Your task to perform on an android device: turn off notifications in google photos Image 0: 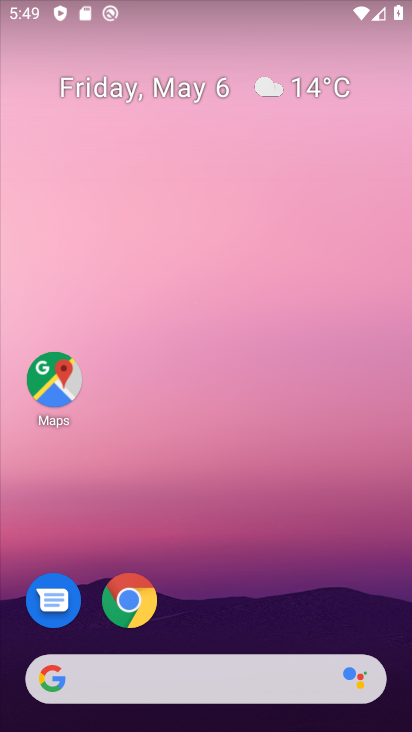
Step 0: drag from (209, 609) to (245, 27)
Your task to perform on an android device: turn off notifications in google photos Image 1: 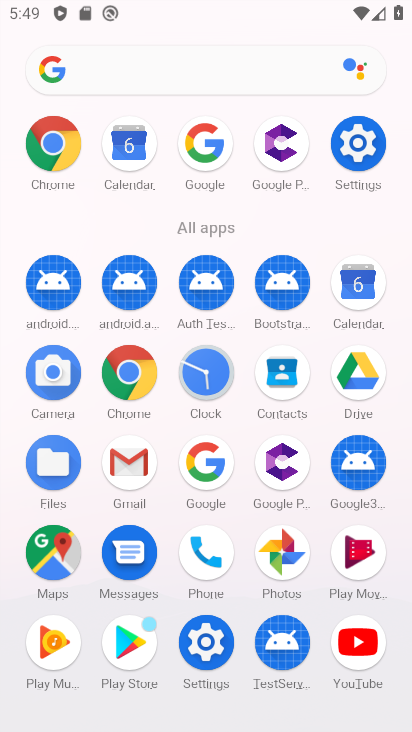
Step 1: click (280, 548)
Your task to perform on an android device: turn off notifications in google photos Image 2: 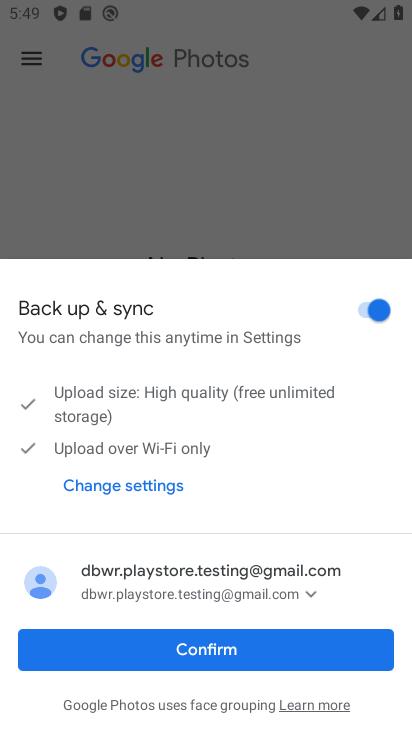
Step 2: click (207, 634)
Your task to perform on an android device: turn off notifications in google photos Image 3: 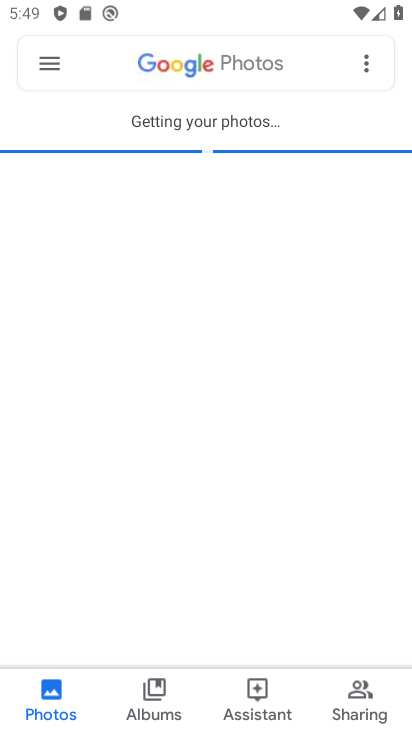
Step 3: click (18, 60)
Your task to perform on an android device: turn off notifications in google photos Image 4: 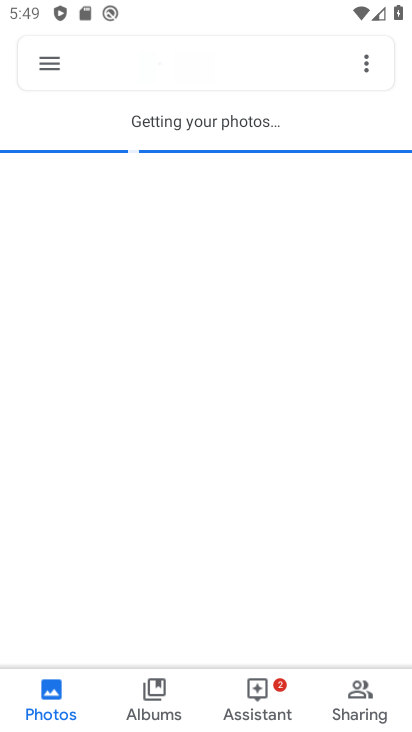
Step 4: click (47, 62)
Your task to perform on an android device: turn off notifications in google photos Image 5: 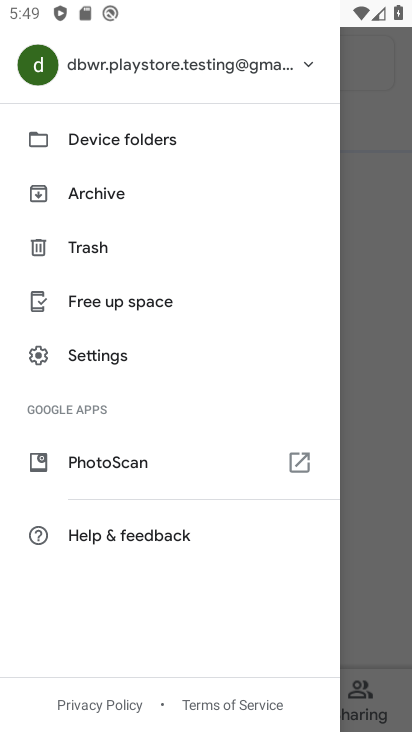
Step 5: click (105, 351)
Your task to perform on an android device: turn off notifications in google photos Image 6: 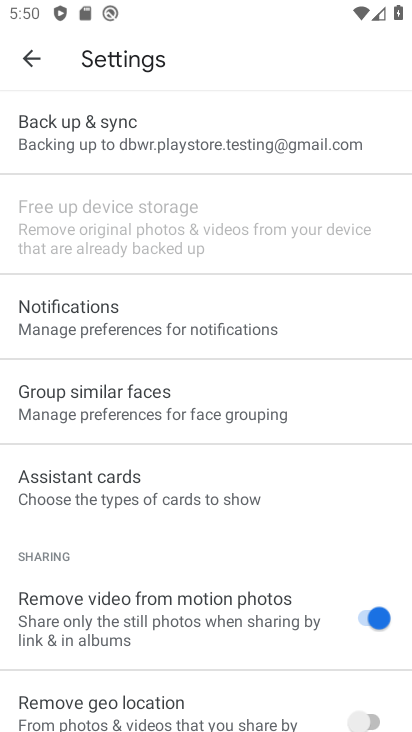
Step 6: click (123, 328)
Your task to perform on an android device: turn off notifications in google photos Image 7: 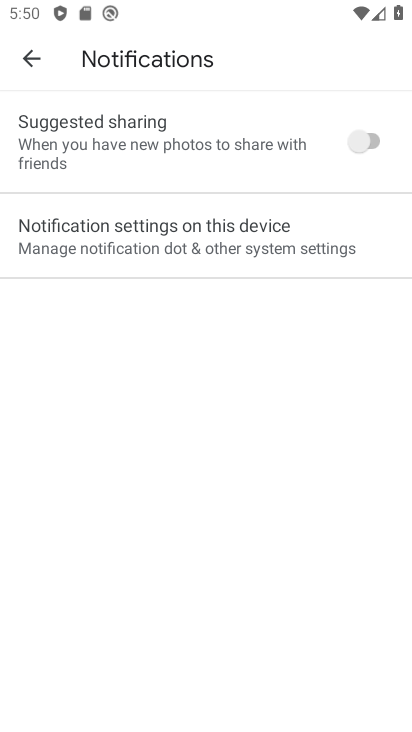
Step 7: click (157, 224)
Your task to perform on an android device: turn off notifications in google photos Image 8: 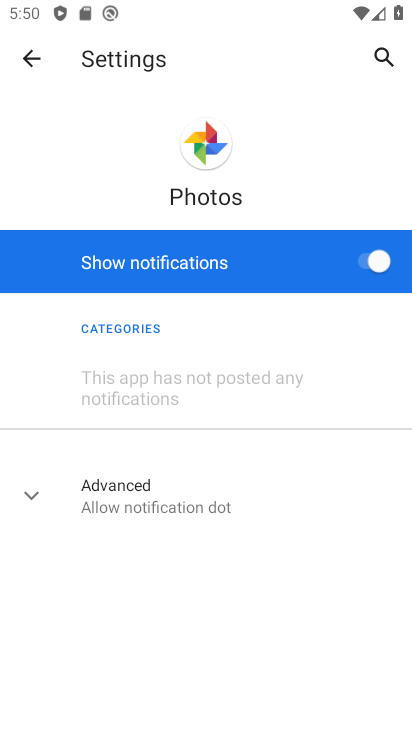
Step 8: click (370, 265)
Your task to perform on an android device: turn off notifications in google photos Image 9: 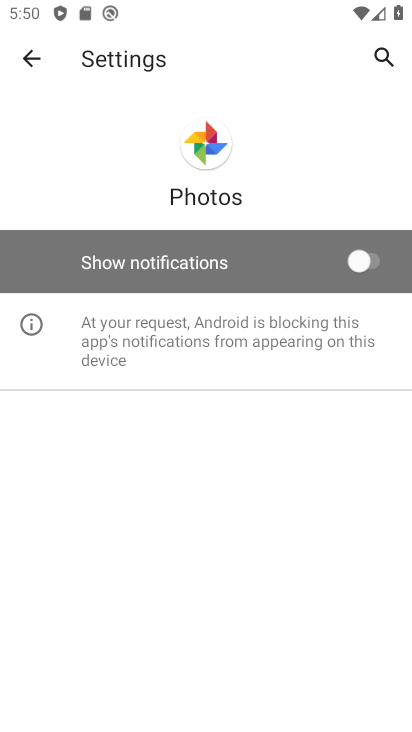
Step 9: task complete